Your task to perform on an android device: Go to internet settings Image 0: 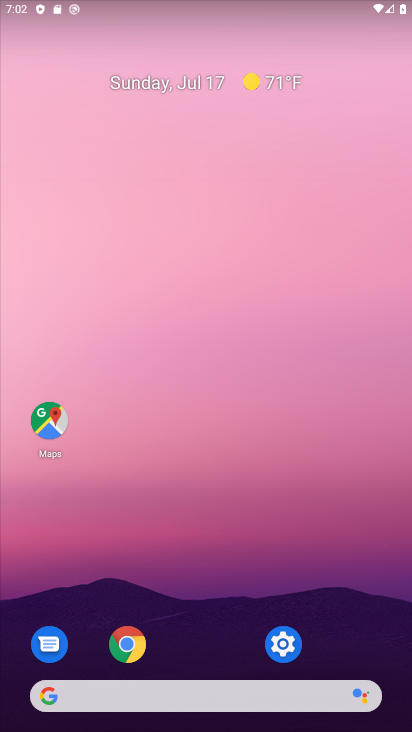
Step 0: click (286, 635)
Your task to perform on an android device: Go to internet settings Image 1: 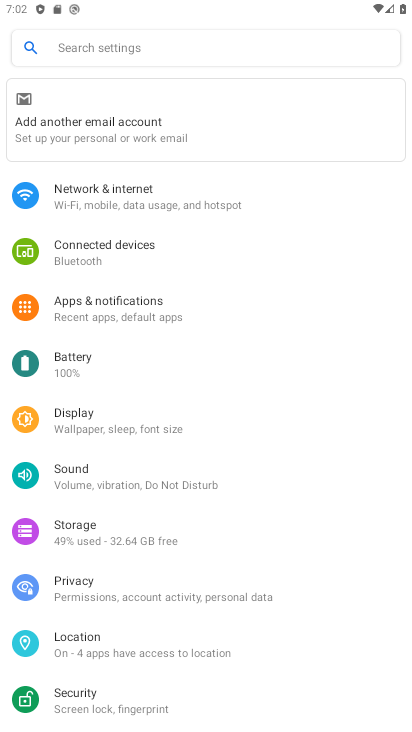
Step 1: click (154, 206)
Your task to perform on an android device: Go to internet settings Image 2: 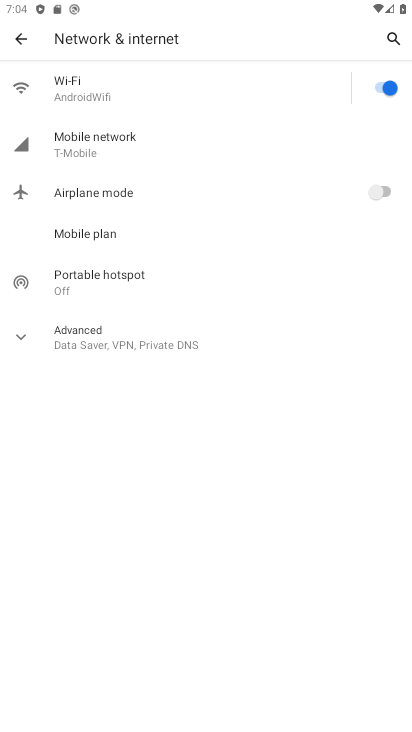
Step 2: task complete